Your task to perform on an android device: Do I have any events tomorrow? Image 0: 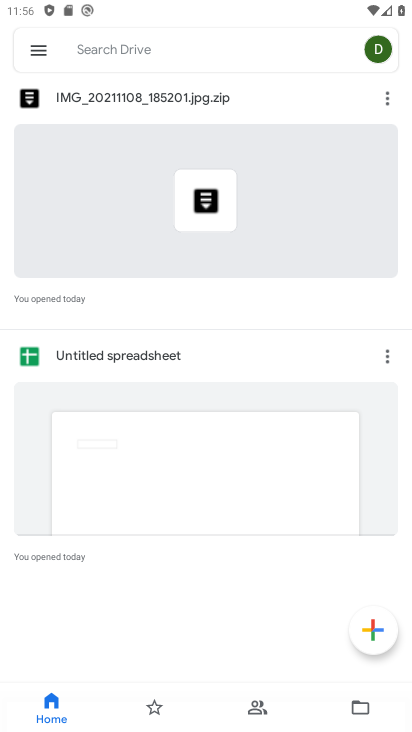
Step 0: press back button
Your task to perform on an android device: Do I have any events tomorrow? Image 1: 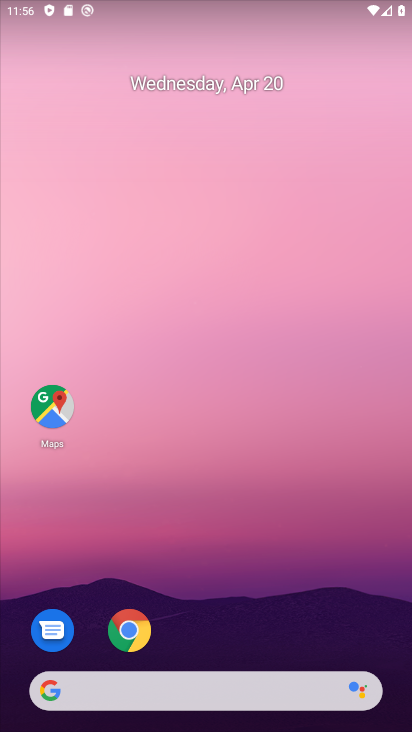
Step 1: drag from (249, 610) to (193, 215)
Your task to perform on an android device: Do I have any events tomorrow? Image 2: 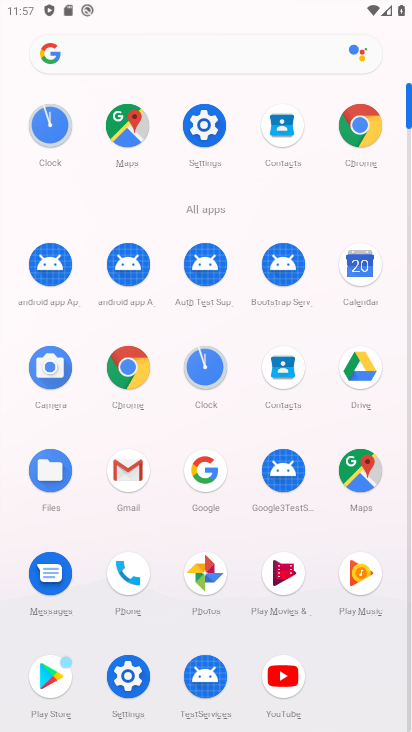
Step 2: click (372, 261)
Your task to perform on an android device: Do I have any events tomorrow? Image 3: 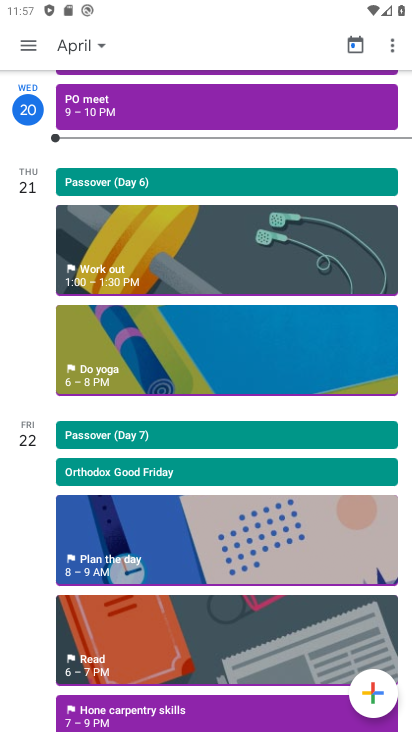
Step 3: click (96, 46)
Your task to perform on an android device: Do I have any events tomorrow? Image 4: 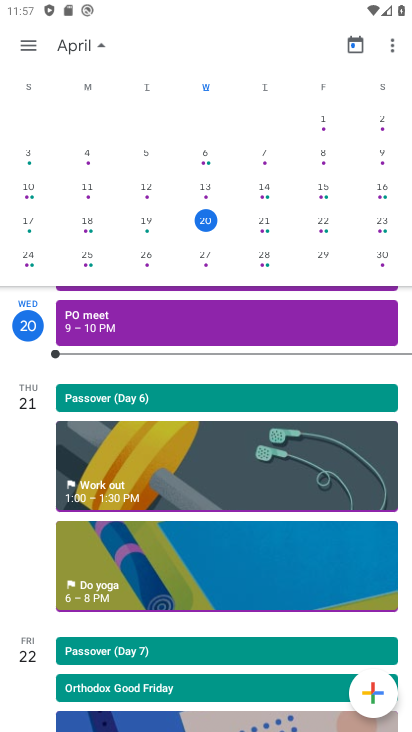
Step 4: click (269, 222)
Your task to perform on an android device: Do I have any events tomorrow? Image 5: 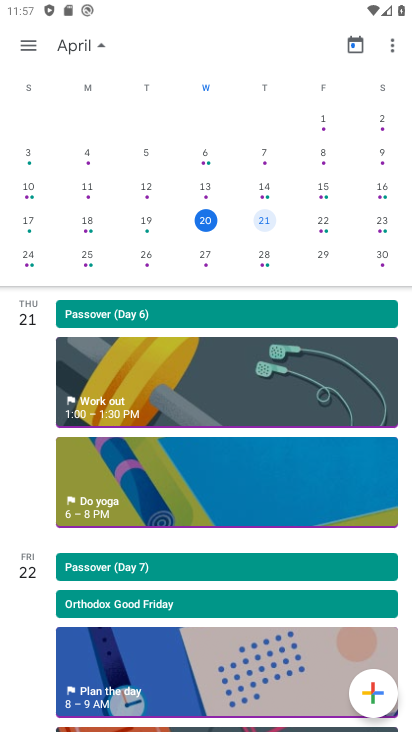
Step 5: click (102, 49)
Your task to perform on an android device: Do I have any events tomorrow? Image 6: 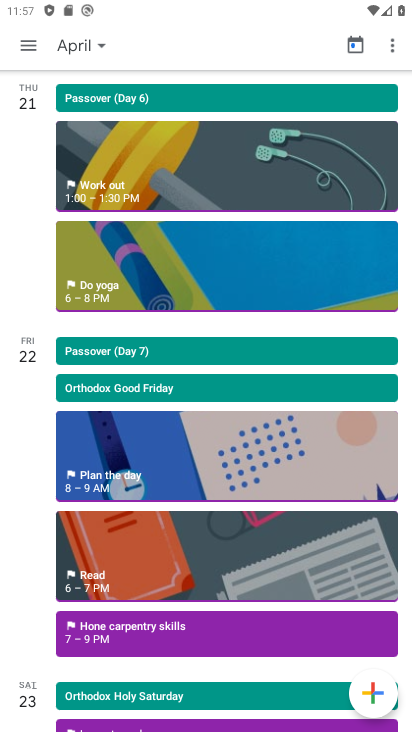
Step 6: task complete